Your task to perform on an android device: open wifi settings Image 0: 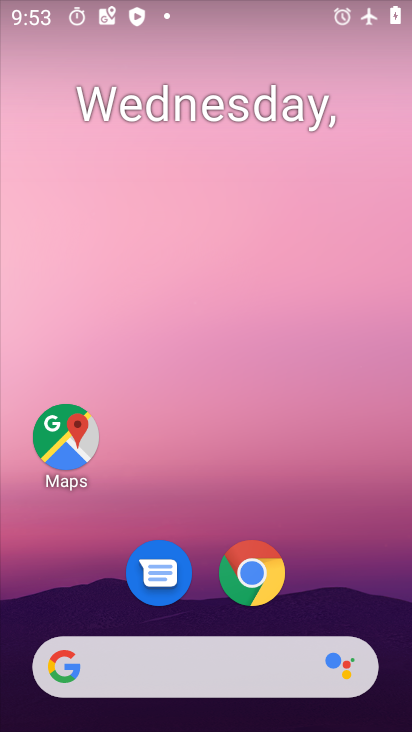
Step 0: drag from (322, 640) to (290, 280)
Your task to perform on an android device: open wifi settings Image 1: 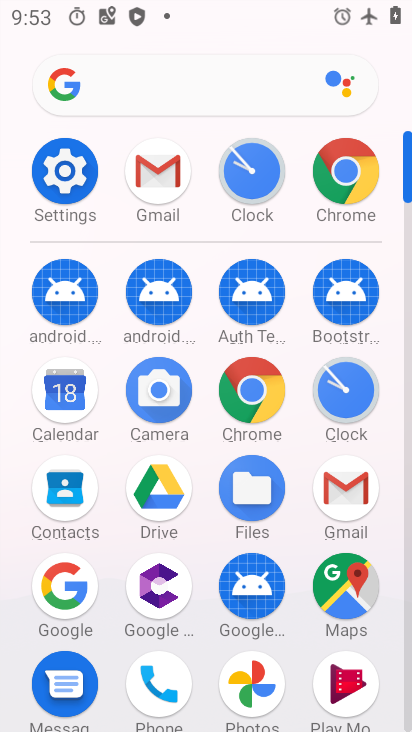
Step 1: click (80, 187)
Your task to perform on an android device: open wifi settings Image 2: 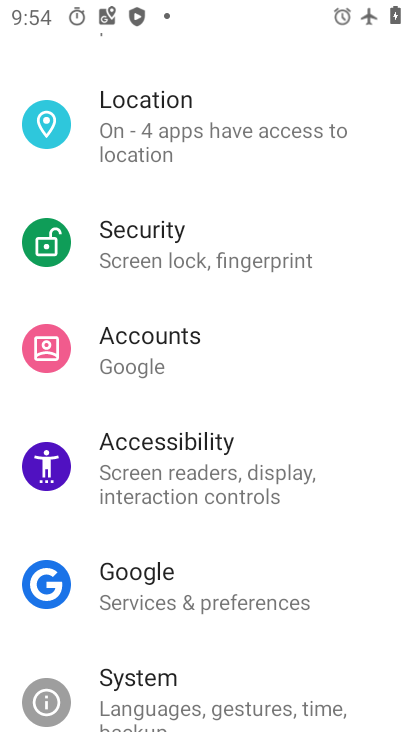
Step 2: drag from (171, 193) to (128, 418)
Your task to perform on an android device: open wifi settings Image 3: 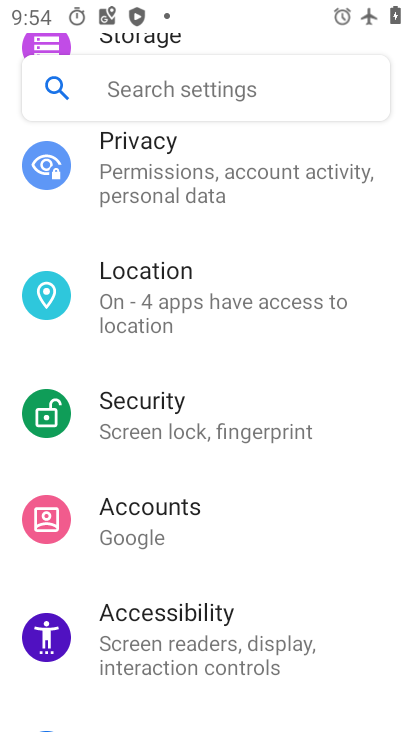
Step 3: drag from (148, 220) to (135, 459)
Your task to perform on an android device: open wifi settings Image 4: 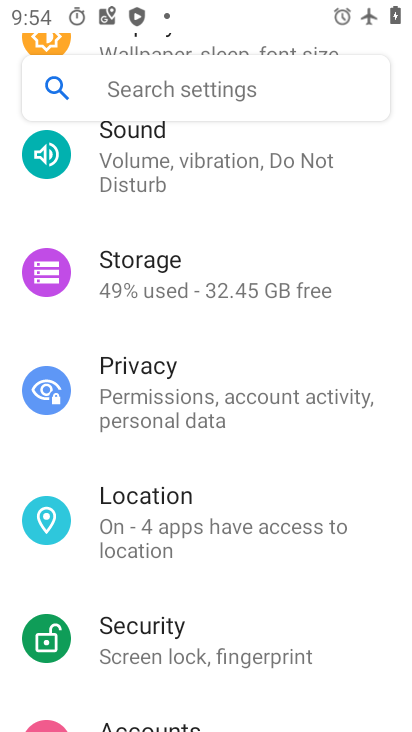
Step 4: drag from (151, 244) to (158, 483)
Your task to perform on an android device: open wifi settings Image 5: 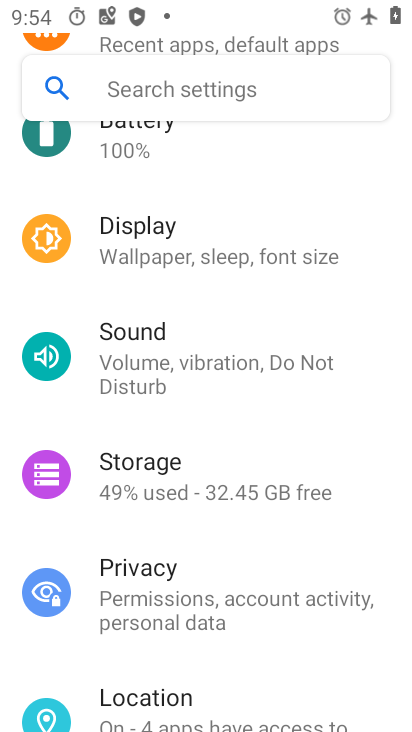
Step 5: drag from (165, 172) to (157, 591)
Your task to perform on an android device: open wifi settings Image 6: 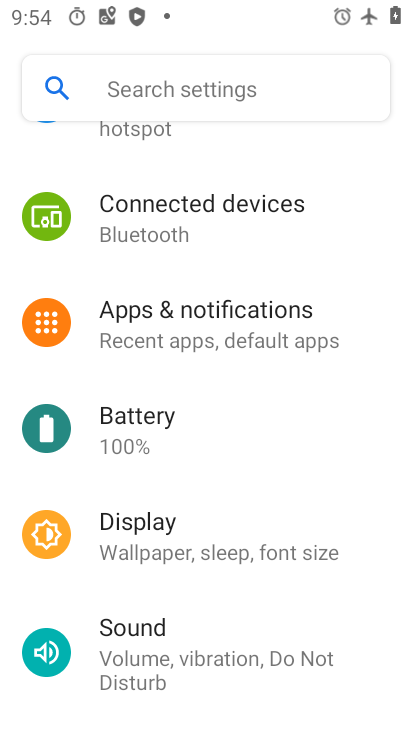
Step 6: drag from (167, 270) to (167, 585)
Your task to perform on an android device: open wifi settings Image 7: 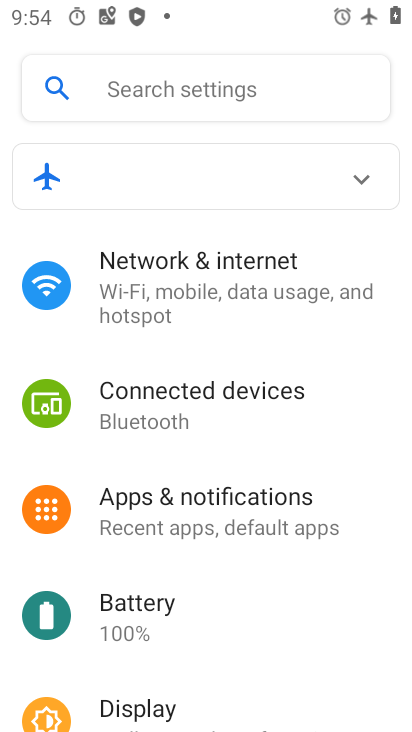
Step 7: click (194, 285)
Your task to perform on an android device: open wifi settings Image 8: 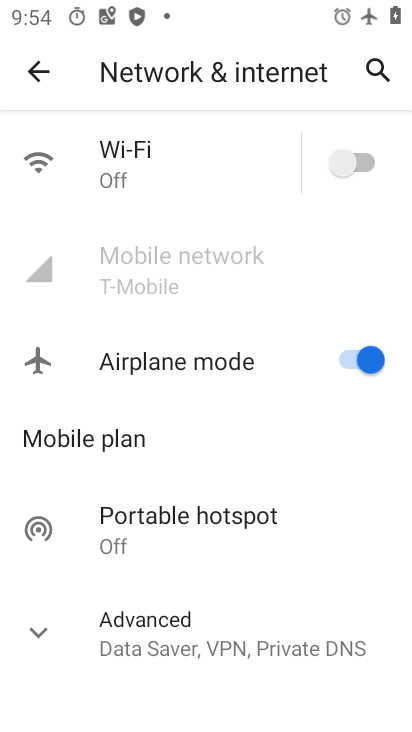
Step 8: click (232, 186)
Your task to perform on an android device: open wifi settings Image 9: 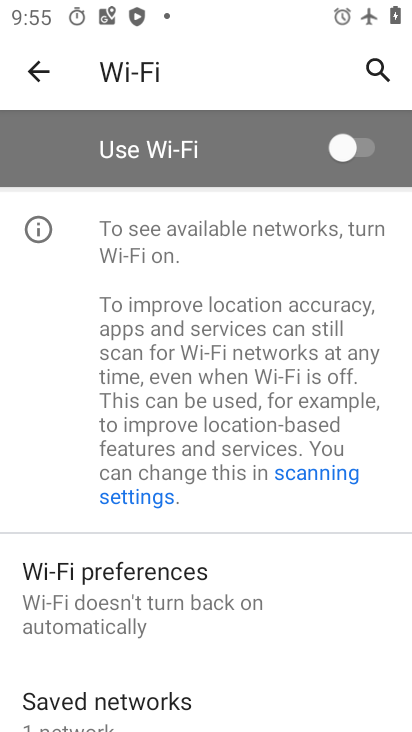
Step 9: task complete